Your task to perform on an android device: turn on sleep mode Image 0: 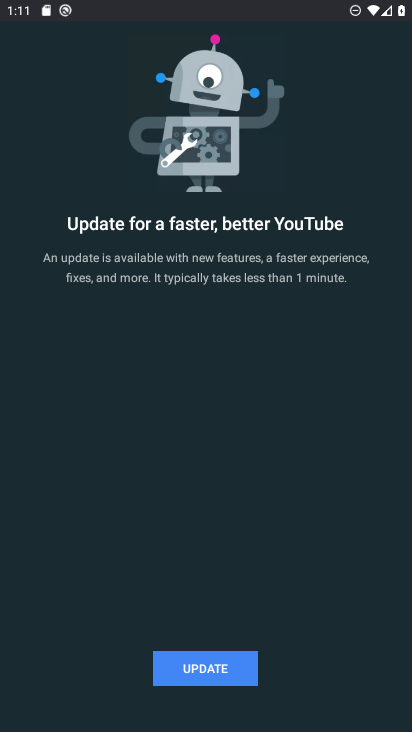
Step 0: press back button
Your task to perform on an android device: turn on sleep mode Image 1: 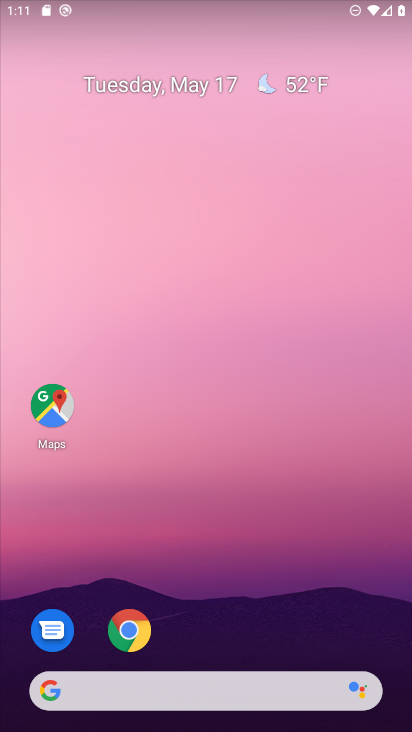
Step 1: drag from (240, 578) to (226, 286)
Your task to perform on an android device: turn on sleep mode Image 2: 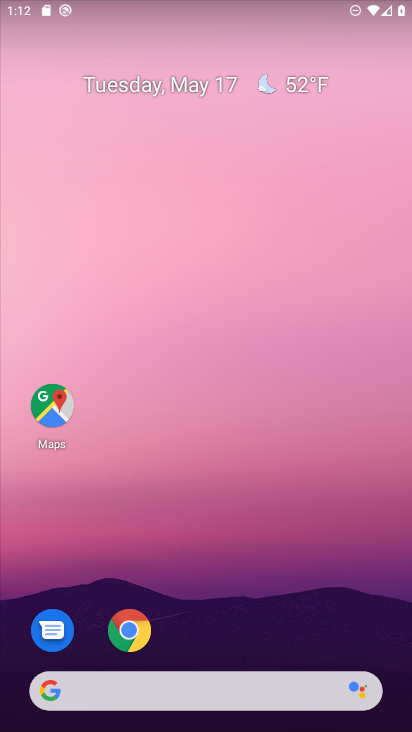
Step 2: drag from (220, 592) to (259, 162)
Your task to perform on an android device: turn on sleep mode Image 3: 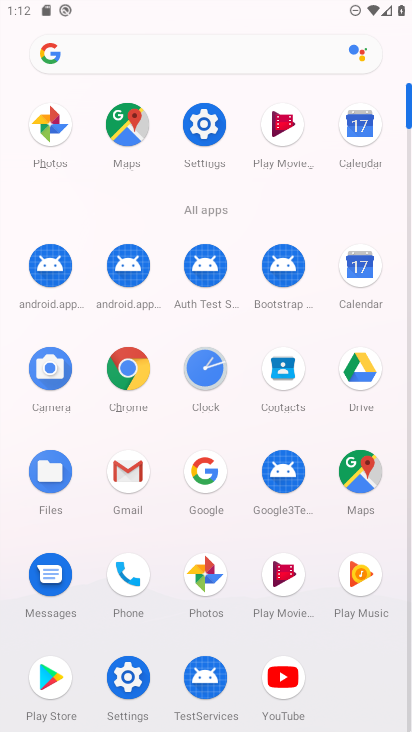
Step 3: click (201, 125)
Your task to perform on an android device: turn on sleep mode Image 4: 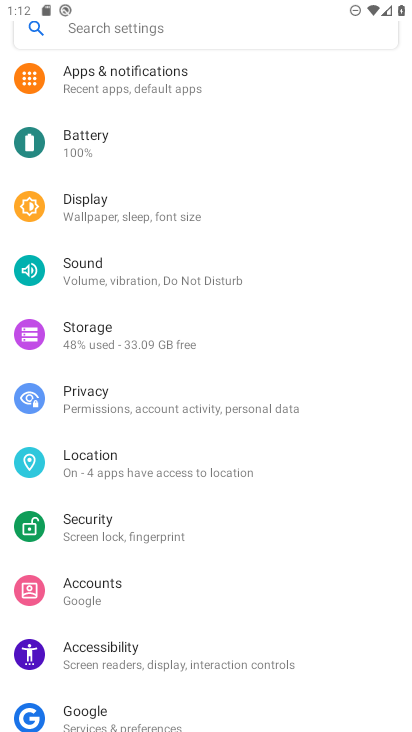
Step 4: click (127, 217)
Your task to perform on an android device: turn on sleep mode Image 5: 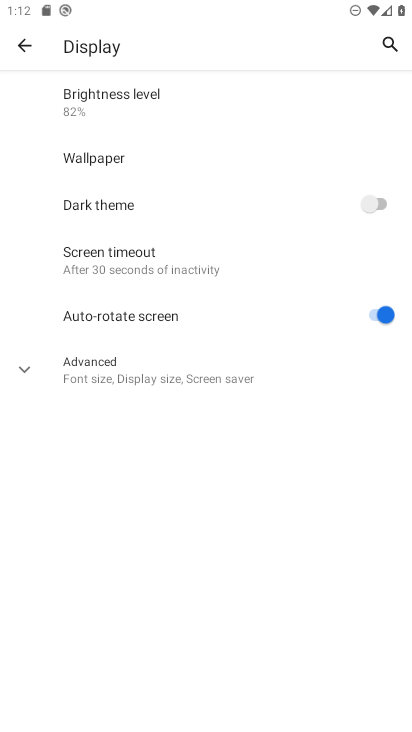
Step 5: click (147, 264)
Your task to perform on an android device: turn on sleep mode Image 6: 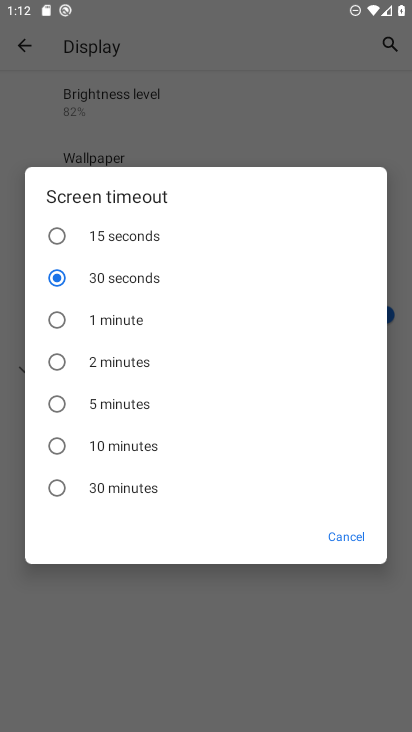
Step 6: click (58, 354)
Your task to perform on an android device: turn on sleep mode Image 7: 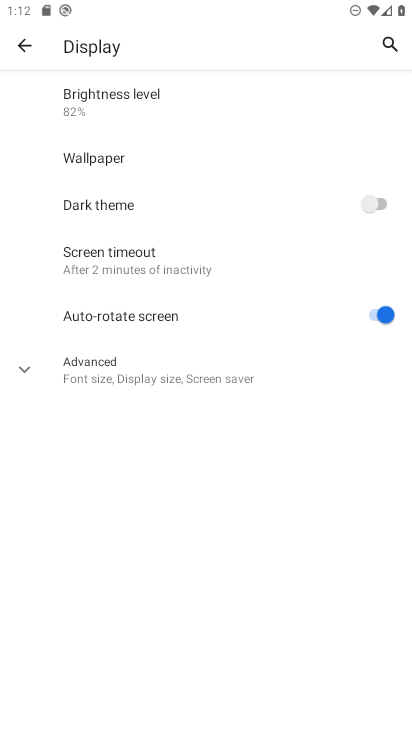
Step 7: click (176, 384)
Your task to perform on an android device: turn on sleep mode Image 8: 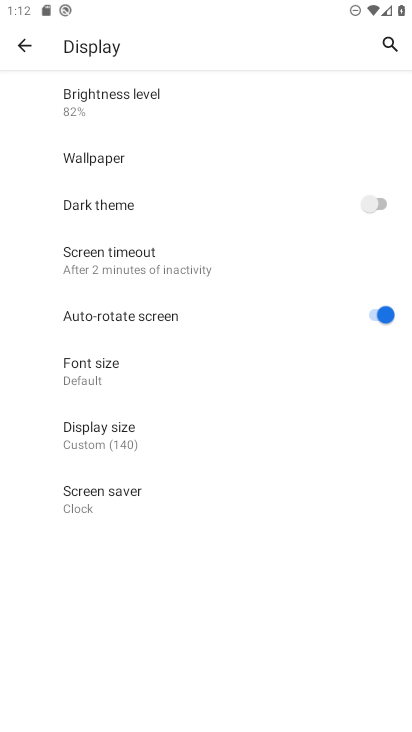
Step 8: click (93, 501)
Your task to perform on an android device: turn on sleep mode Image 9: 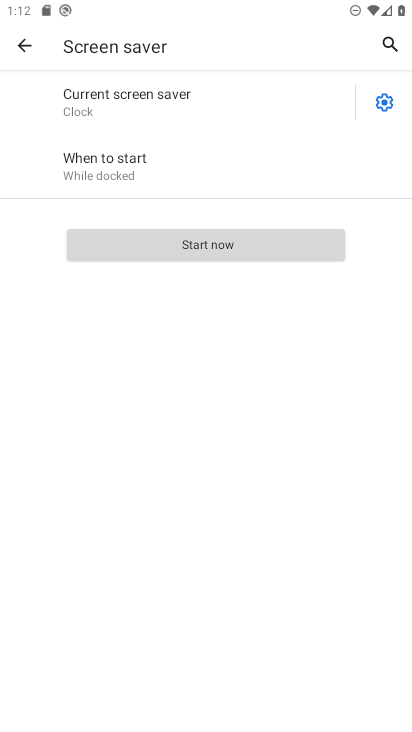
Step 9: click (377, 98)
Your task to perform on an android device: turn on sleep mode Image 10: 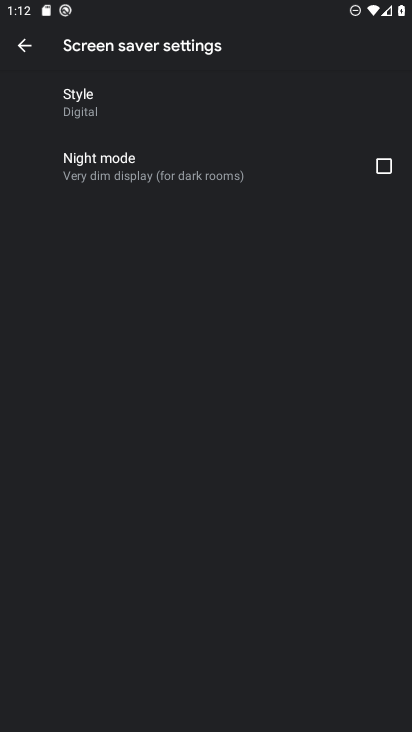
Step 10: click (387, 168)
Your task to perform on an android device: turn on sleep mode Image 11: 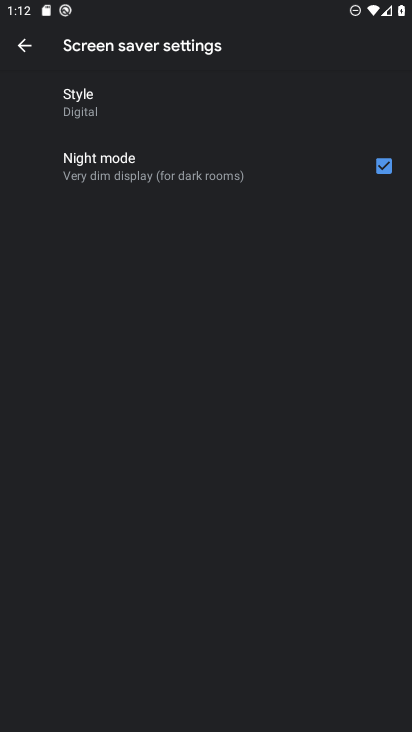
Step 11: press back button
Your task to perform on an android device: turn on sleep mode Image 12: 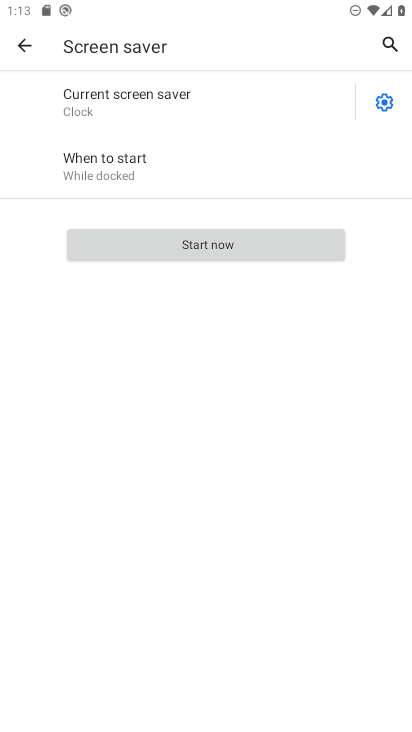
Step 12: press back button
Your task to perform on an android device: turn on sleep mode Image 13: 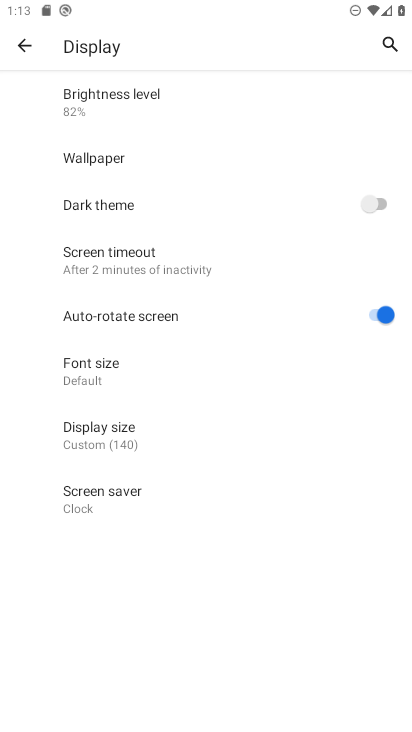
Step 13: click (112, 431)
Your task to perform on an android device: turn on sleep mode Image 14: 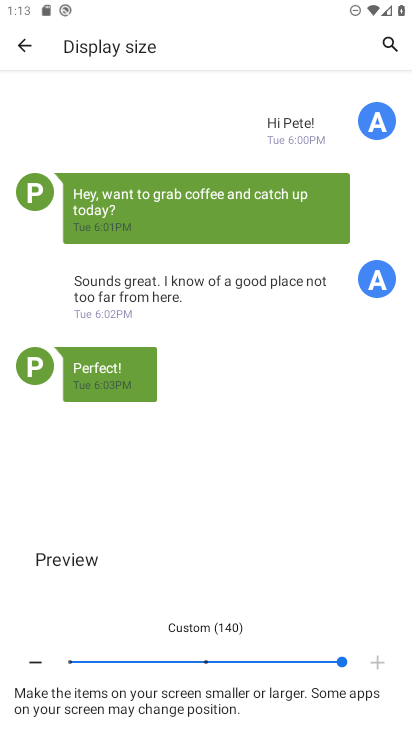
Step 14: click (30, 661)
Your task to perform on an android device: turn on sleep mode Image 15: 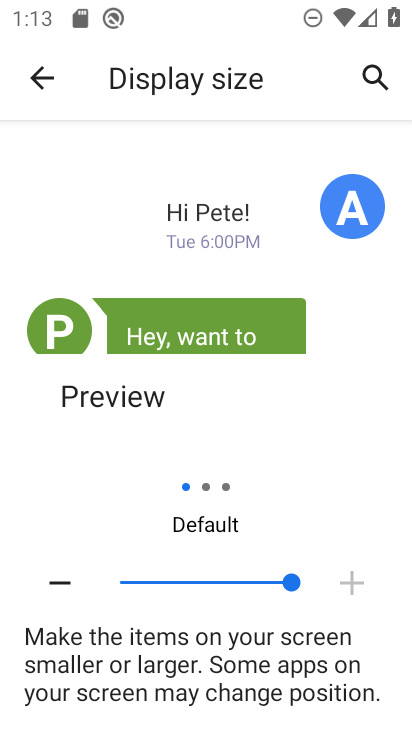
Step 15: click (350, 576)
Your task to perform on an android device: turn on sleep mode Image 16: 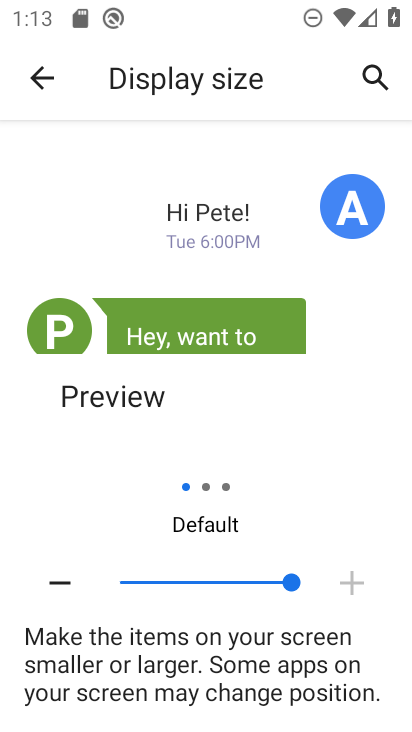
Step 16: click (352, 578)
Your task to perform on an android device: turn on sleep mode Image 17: 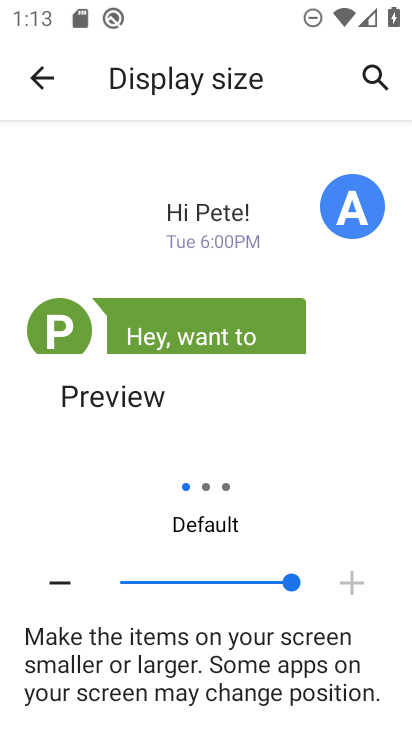
Step 17: task complete